Your task to perform on an android device: change notification settings in the gmail app Image 0: 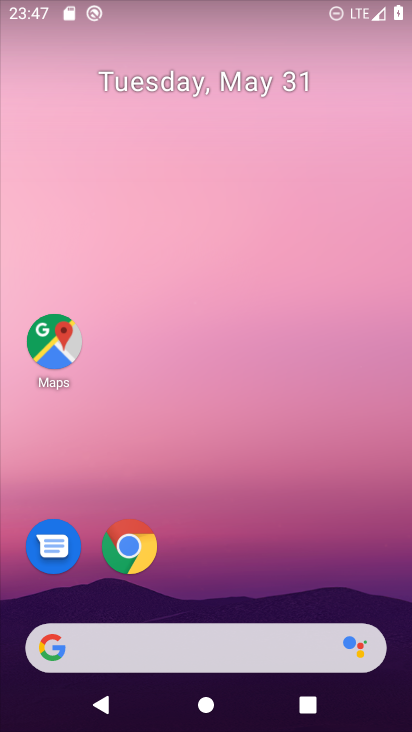
Step 0: drag from (401, 684) to (303, 157)
Your task to perform on an android device: change notification settings in the gmail app Image 1: 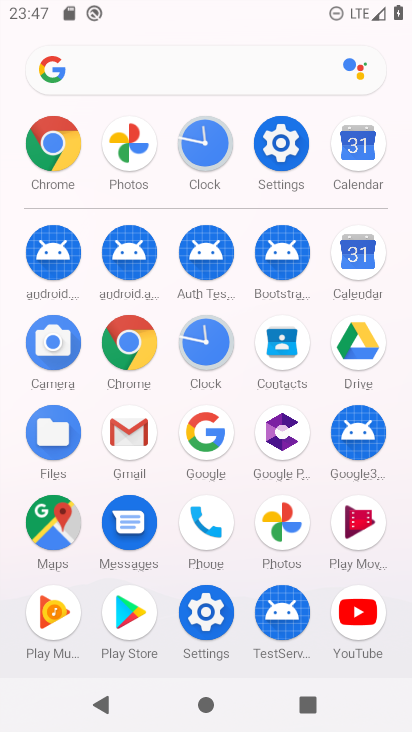
Step 1: click (135, 429)
Your task to perform on an android device: change notification settings in the gmail app Image 2: 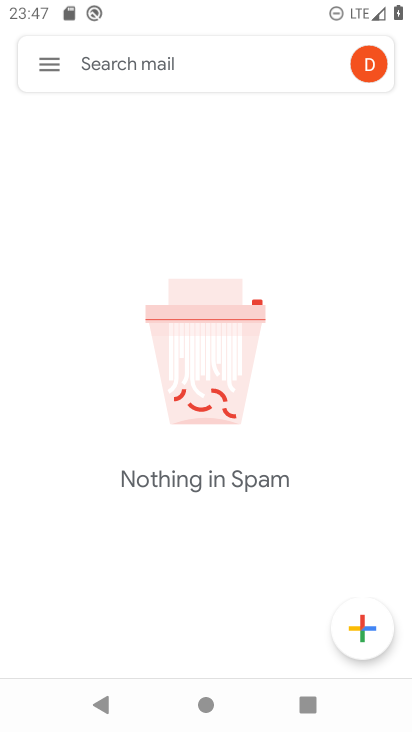
Step 2: click (42, 57)
Your task to perform on an android device: change notification settings in the gmail app Image 3: 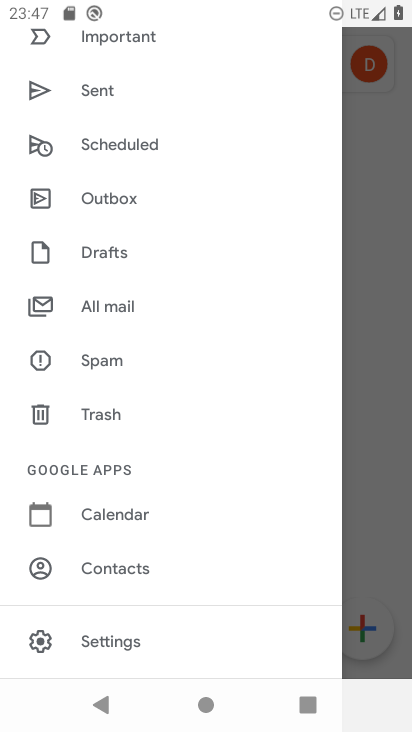
Step 3: click (120, 638)
Your task to perform on an android device: change notification settings in the gmail app Image 4: 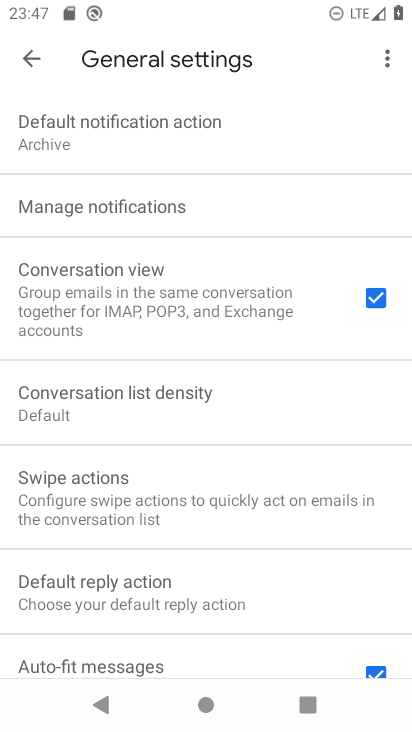
Step 4: click (82, 210)
Your task to perform on an android device: change notification settings in the gmail app Image 5: 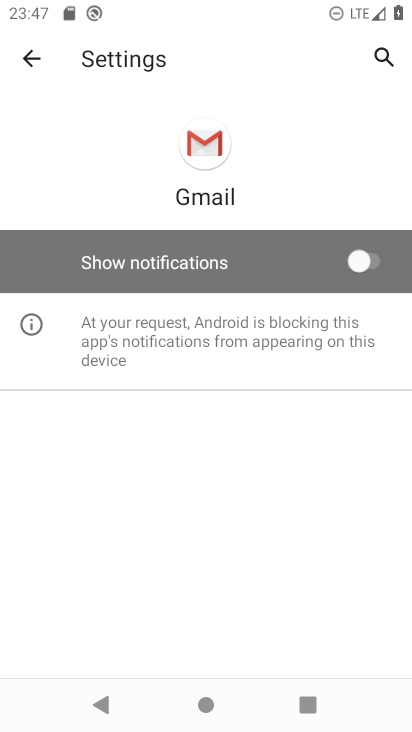
Step 5: click (373, 260)
Your task to perform on an android device: change notification settings in the gmail app Image 6: 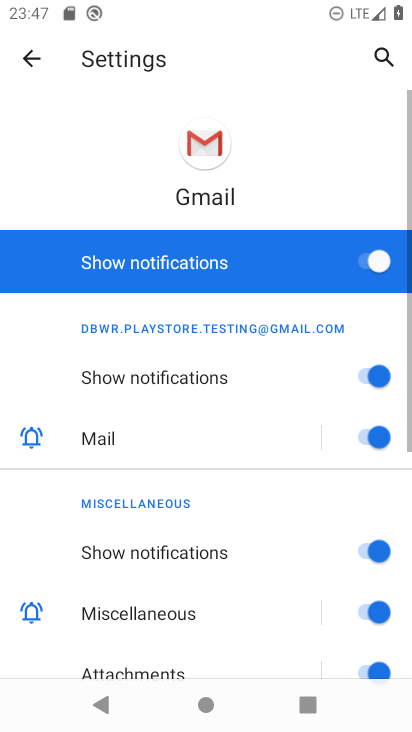
Step 6: task complete